Your task to perform on an android device: set an alarm Image 0: 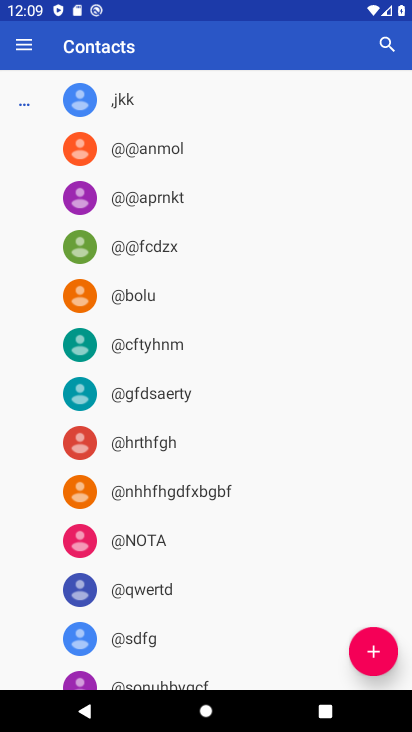
Step 0: press home button
Your task to perform on an android device: set an alarm Image 1: 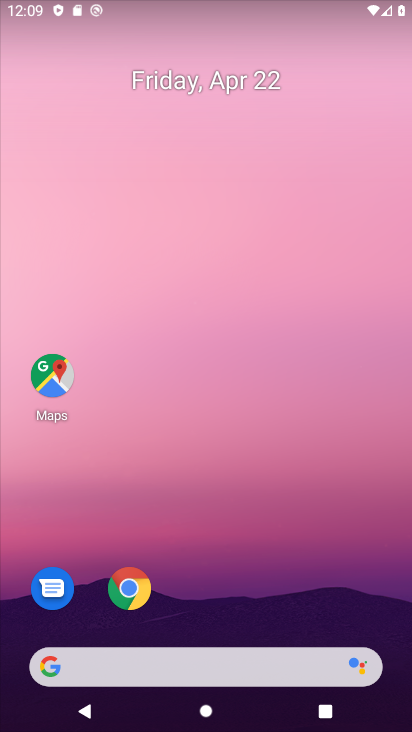
Step 1: drag from (199, 394) to (272, 49)
Your task to perform on an android device: set an alarm Image 2: 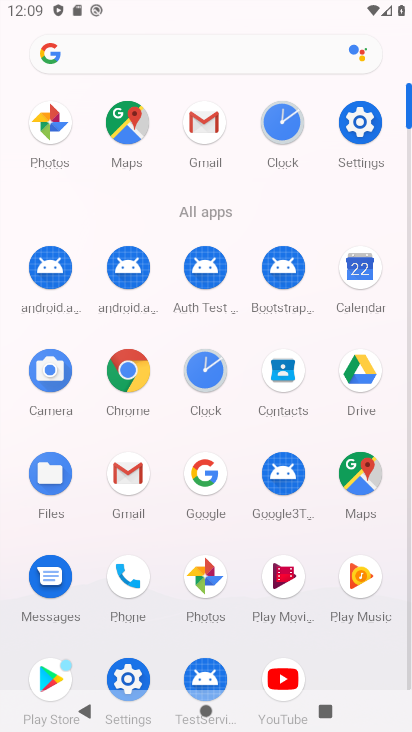
Step 2: click (276, 118)
Your task to perform on an android device: set an alarm Image 3: 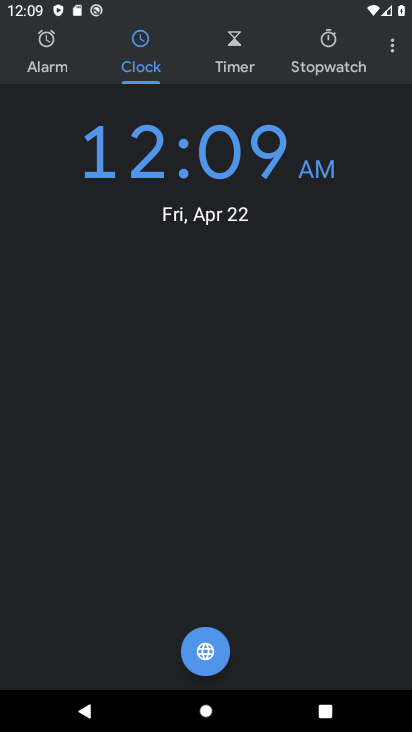
Step 3: click (63, 69)
Your task to perform on an android device: set an alarm Image 4: 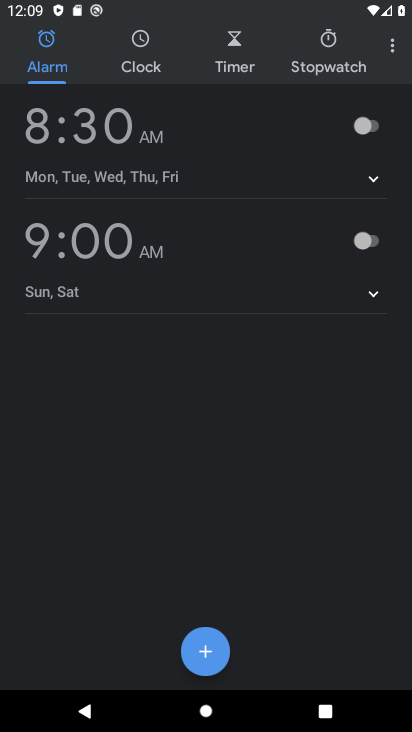
Step 4: click (207, 662)
Your task to perform on an android device: set an alarm Image 5: 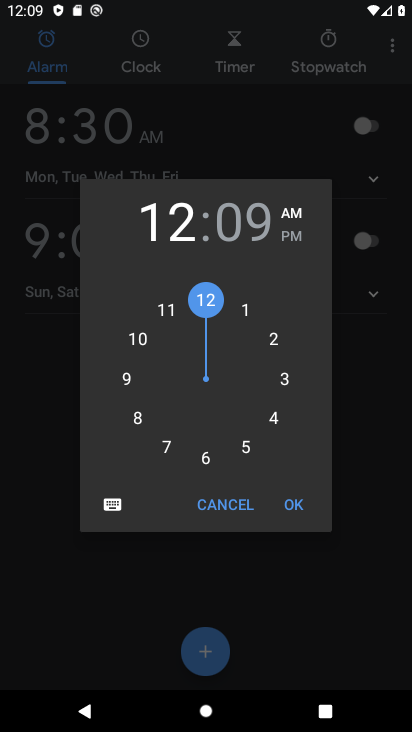
Step 5: click (120, 380)
Your task to perform on an android device: set an alarm Image 6: 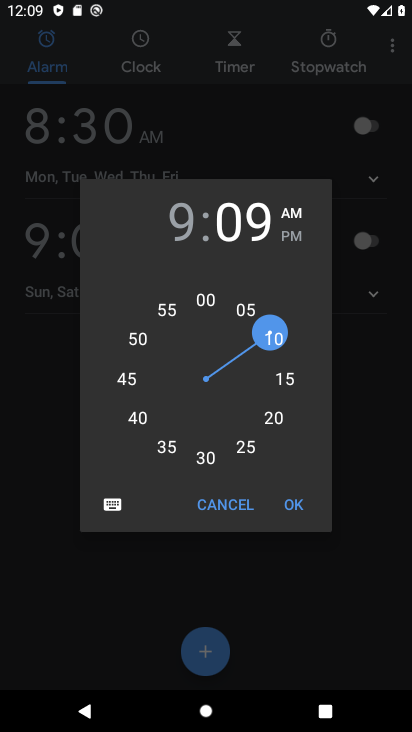
Step 6: click (307, 515)
Your task to perform on an android device: set an alarm Image 7: 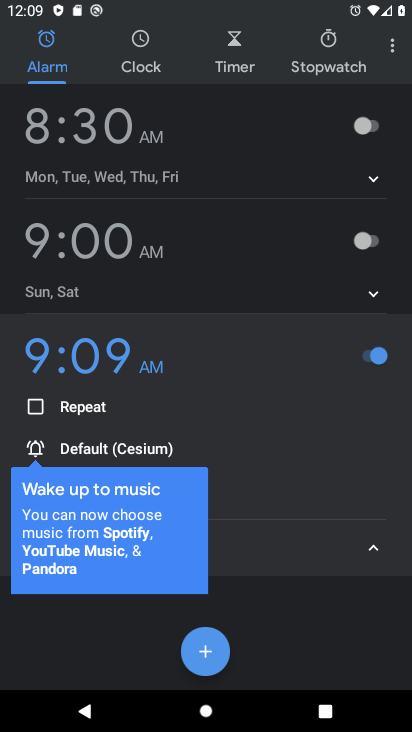
Step 7: task complete